Your task to perform on an android device: turn off translation in the chrome app Image 0: 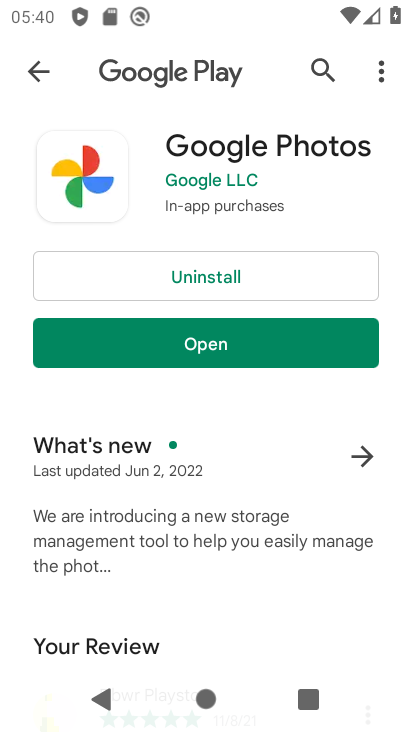
Step 0: press back button
Your task to perform on an android device: turn off translation in the chrome app Image 1: 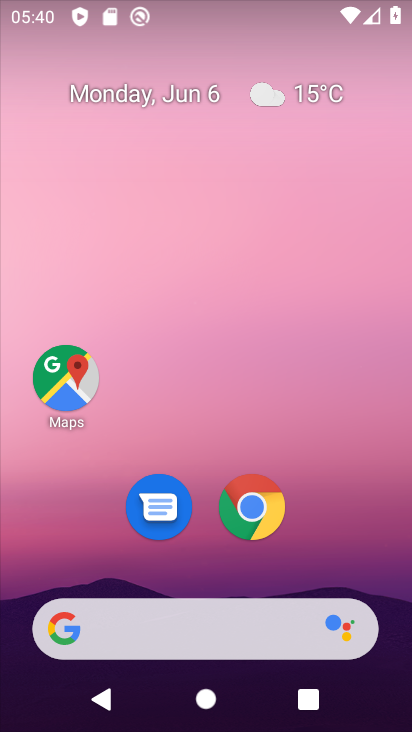
Step 1: click (255, 503)
Your task to perform on an android device: turn off translation in the chrome app Image 2: 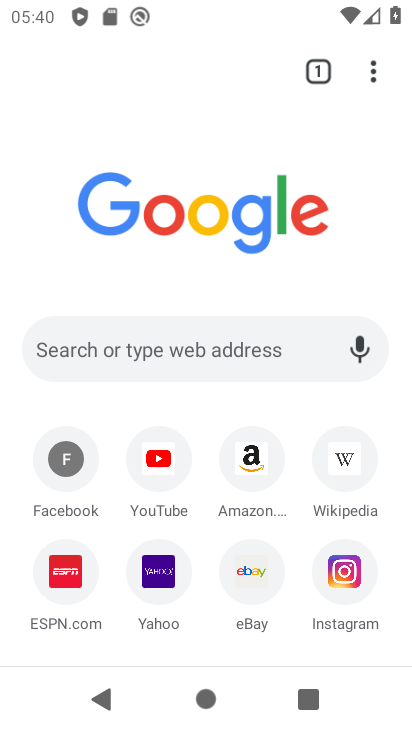
Step 2: click (371, 75)
Your task to perform on an android device: turn off translation in the chrome app Image 3: 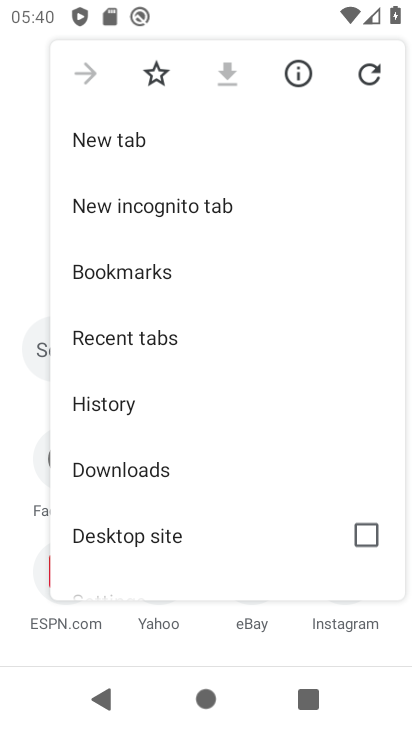
Step 3: drag from (120, 412) to (131, 310)
Your task to perform on an android device: turn off translation in the chrome app Image 4: 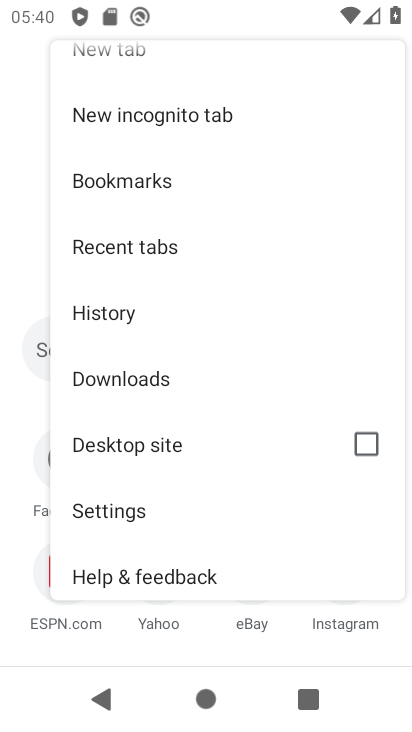
Step 4: click (131, 505)
Your task to perform on an android device: turn off translation in the chrome app Image 5: 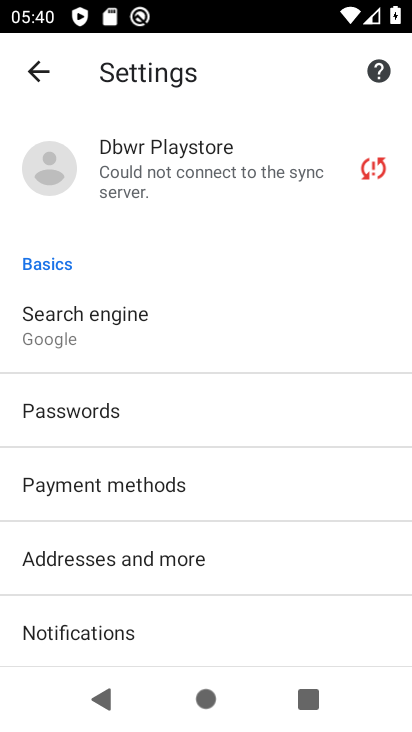
Step 5: drag from (134, 615) to (153, 229)
Your task to perform on an android device: turn off translation in the chrome app Image 6: 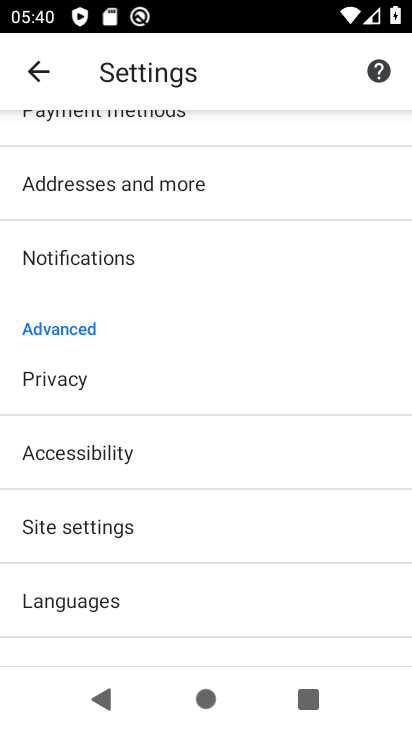
Step 6: drag from (184, 554) to (197, 243)
Your task to perform on an android device: turn off translation in the chrome app Image 7: 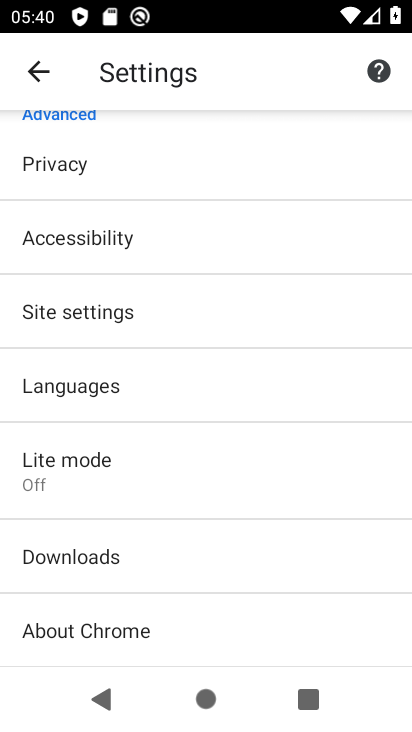
Step 7: click (106, 400)
Your task to perform on an android device: turn off translation in the chrome app Image 8: 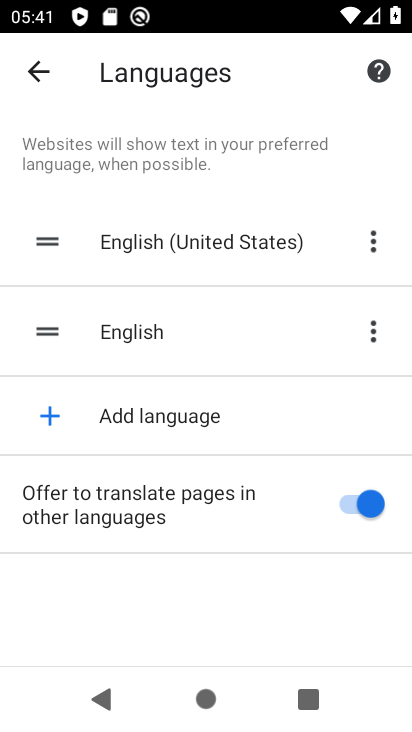
Step 8: click (347, 512)
Your task to perform on an android device: turn off translation in the chrome app Image 9: 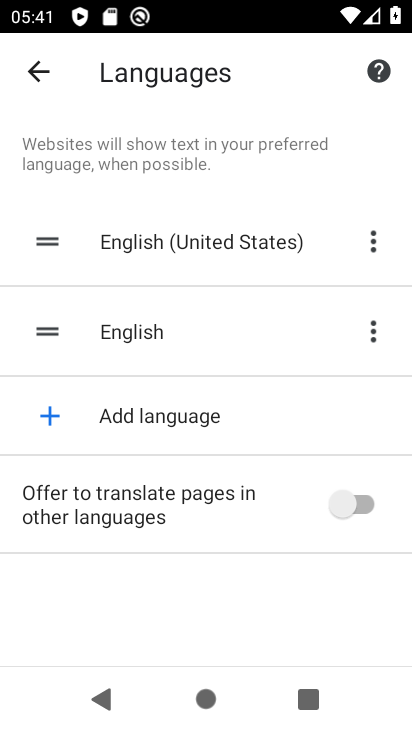
Step 9: task complete